Your task to perform on an android device: Go to Reddit.com Image 0: 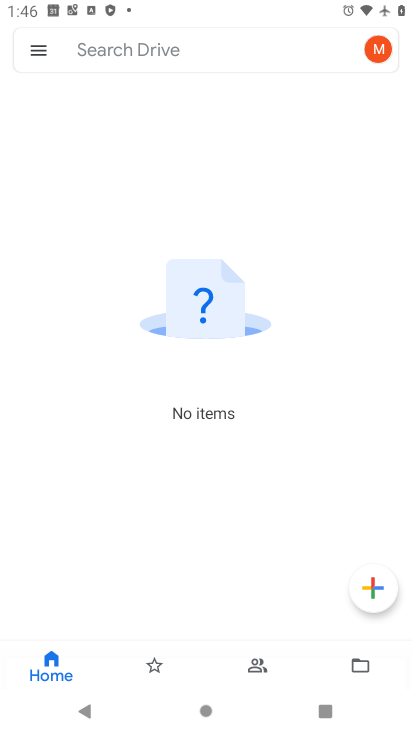
Step 0: press home button
Your task to perform on an android device: Go to Reddit.com Image 1: 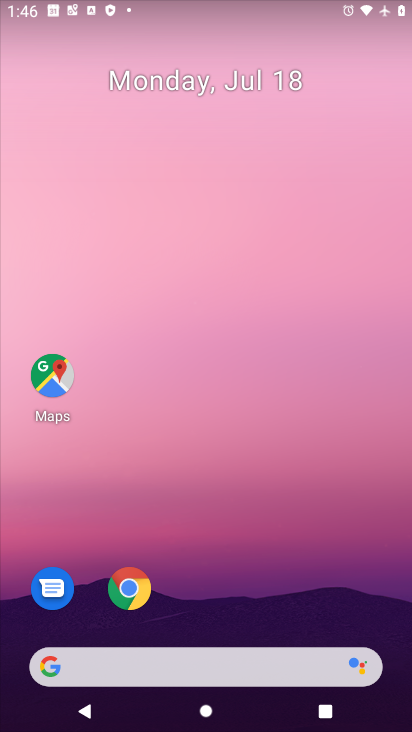
Step 1: drag from (190, 654) to (253, 83)
Your task to perform on an android device: Go to Reddit.com Image 2: 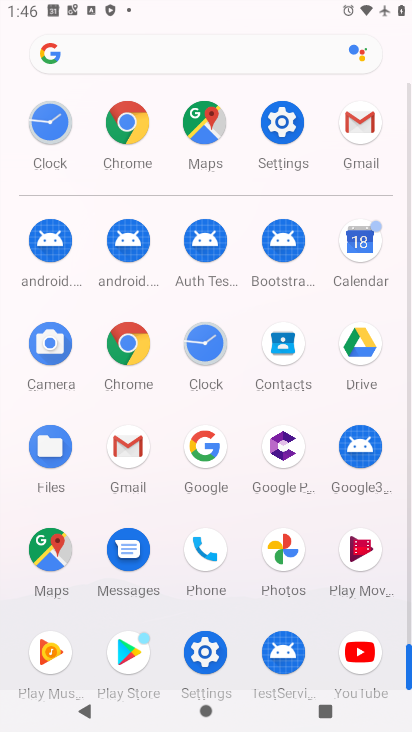
Step 2: click (131, 134)
Your task to perform on an android device: Go to Reddit.com Image 3: 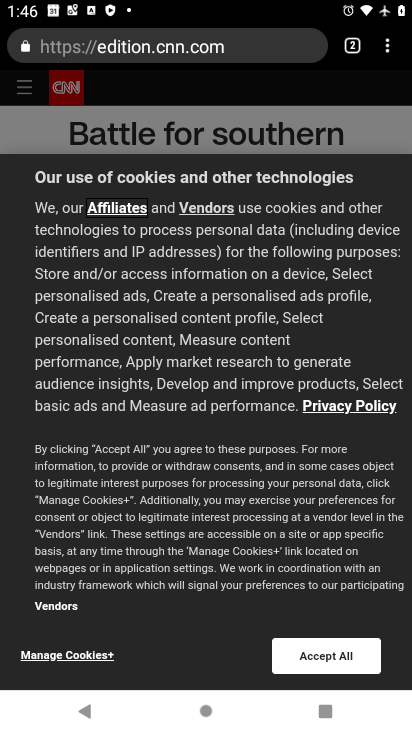
Step 3: click (273, 54)
Your task to perform on an android device: Go to Reddit.com Image 4: 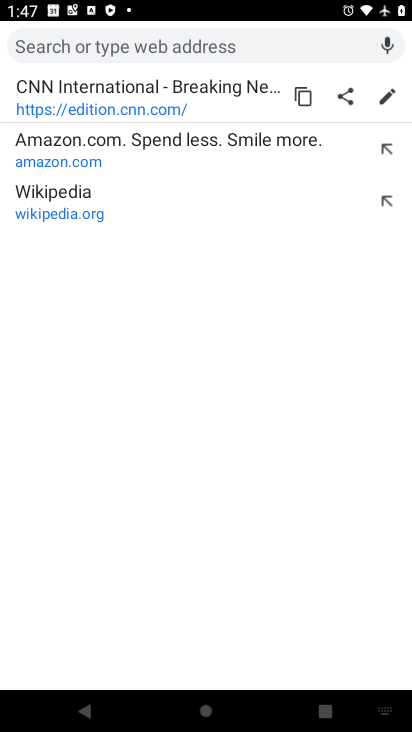
Step 4: type "reddit"
Your task to perform on an android device: Go to Reddit.com Image 5: 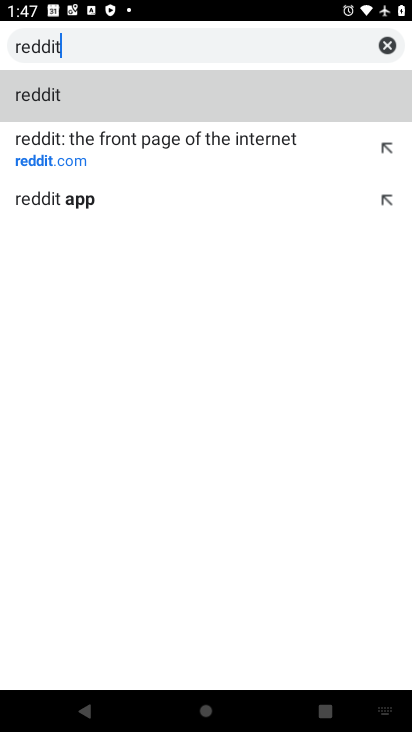
Step 5: click (128, 140)
Your task to perform on an android device: Go to Reddit.com Image 6: 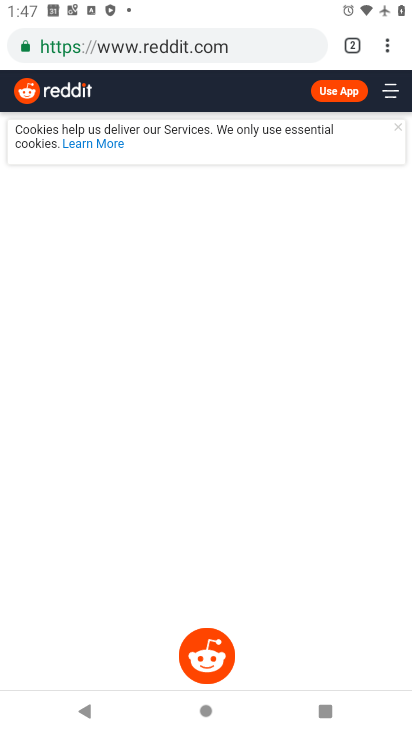
Step 6: task complete